Your task to perform on an android device: Open Google Chrome and click the shortcut for Amazon.com Image 0: 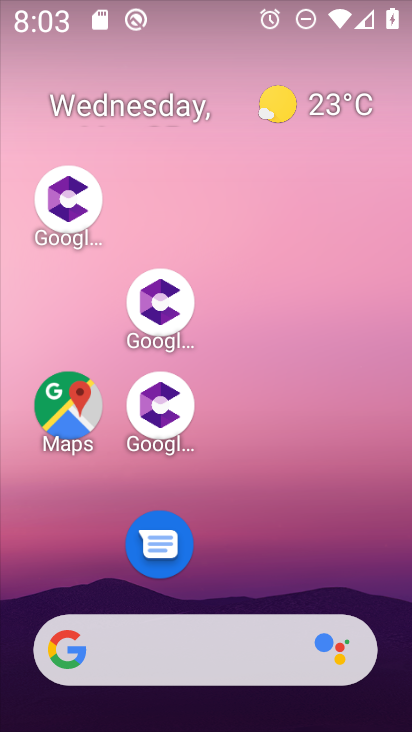
Step 0: drag from (313, 512) to (235, 49)
Your task to perform on an android device: Open Google Chrome and click the shortcut for Amazon.com Image 1: 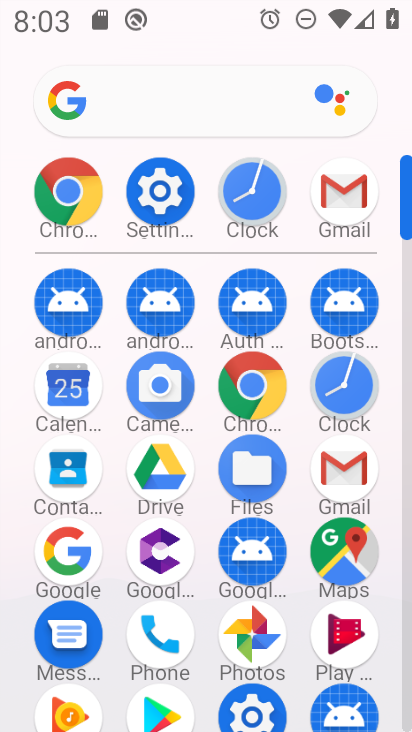
Step 1: click (67, 186)
Your task to perform on an android device: Open Google Chrome and click the shortcut for Amazon.com Image 2: 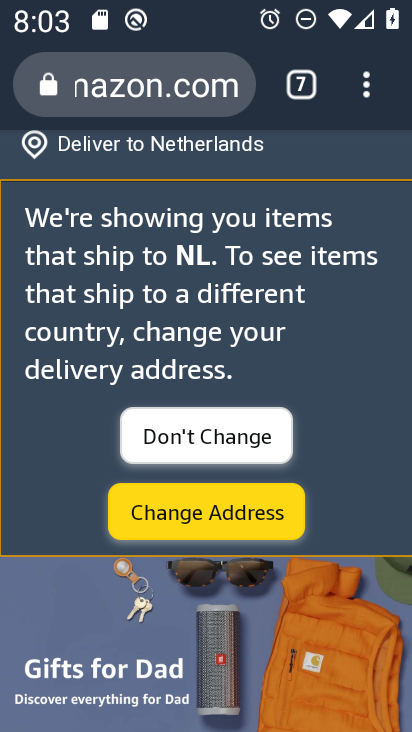
Step 2: click (378, 82)
Your task to perform on an android device: Open Google Chrome and click the shortcut for Amazon.com Image 3: 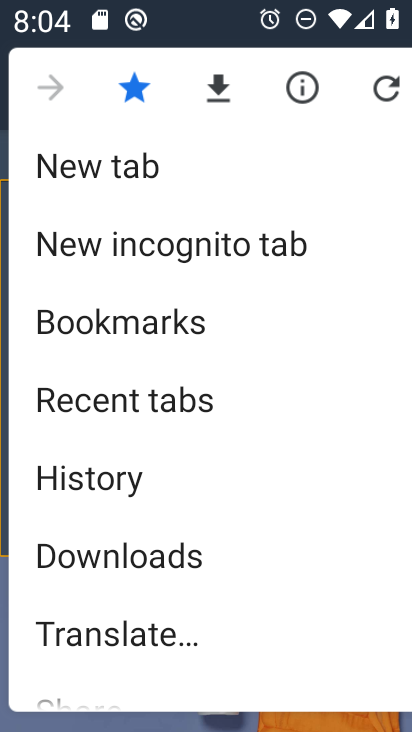
Step 3: click (135, 175)
Your task to perform on an android device: Open Google Chrome and click the shortcut for Amazon.com Image 4: 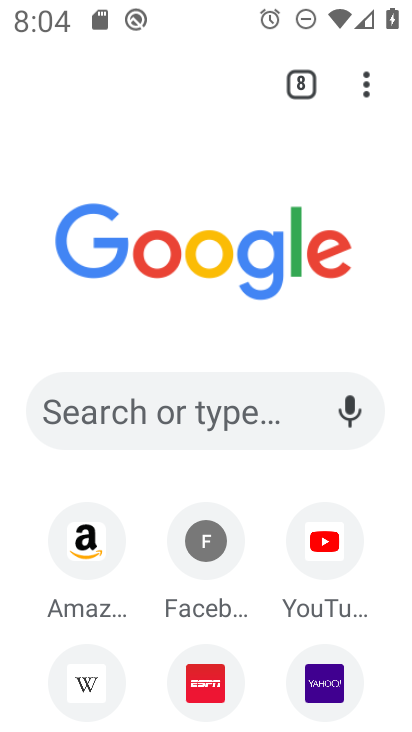
Step 4: click (90, 548)
Your task to perform on an android device: Open Google Chrome and click the shortcut for Amazon.com Image 5: 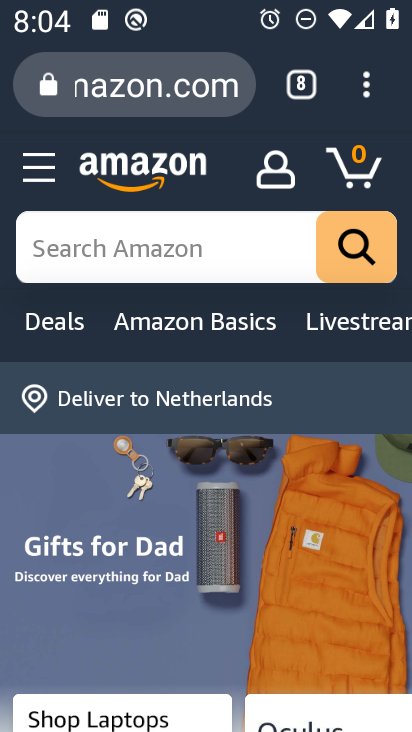
Step 5: task complete